Your task to perform on an android device: turn on wifi Image 0: 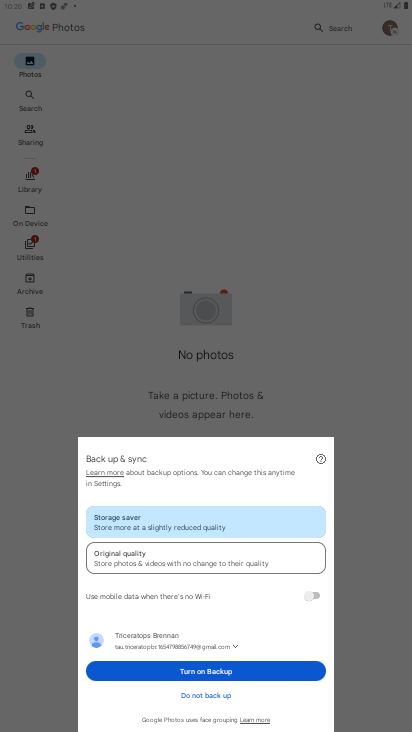
Step 0: press home button
Your task to perform on an android device: turn on wifi Image 1: 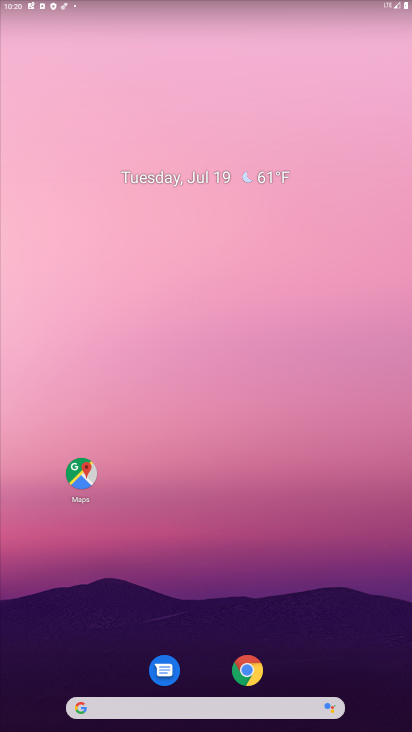
Step 1: drag from (222, 731) to (214, 178)
Your task to perform on an android device: turn on wifi Image 2: 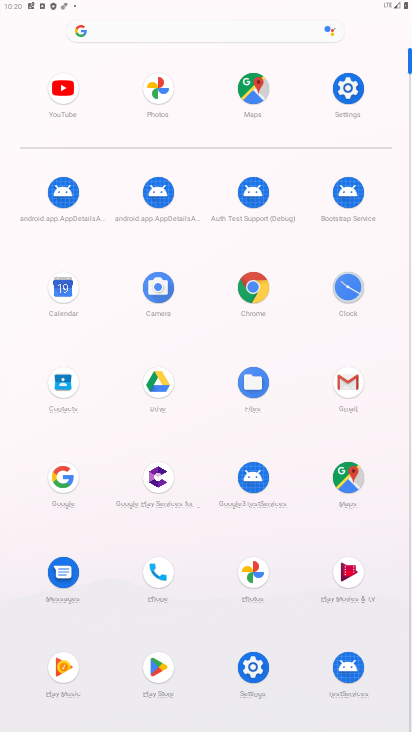
Step 2: click (362, 70)
Your task to perform on an android device: turn on wifi Image 3: 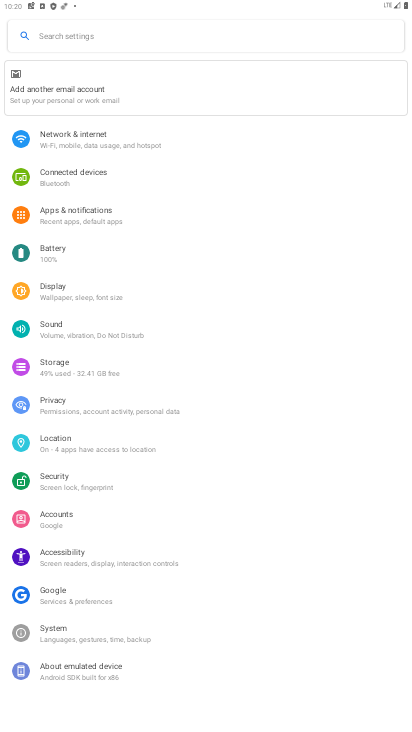
Step 3: click (123, 147)
Your task to perform on an android device: turn on wifi Image 4: 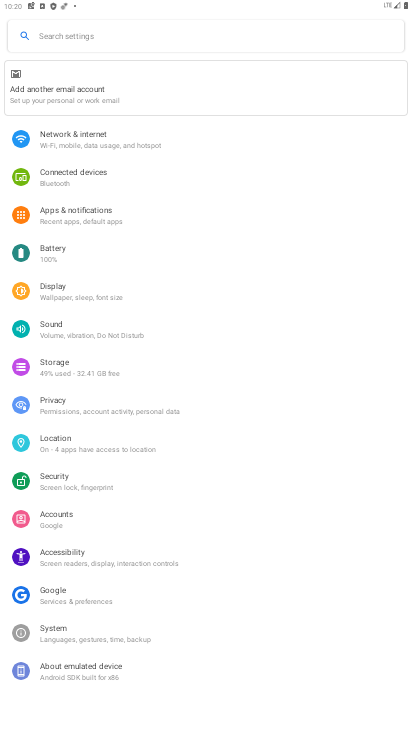
Step 4: click (123, 147)
Your task to perform on an android device: turn on wifi Image 5: 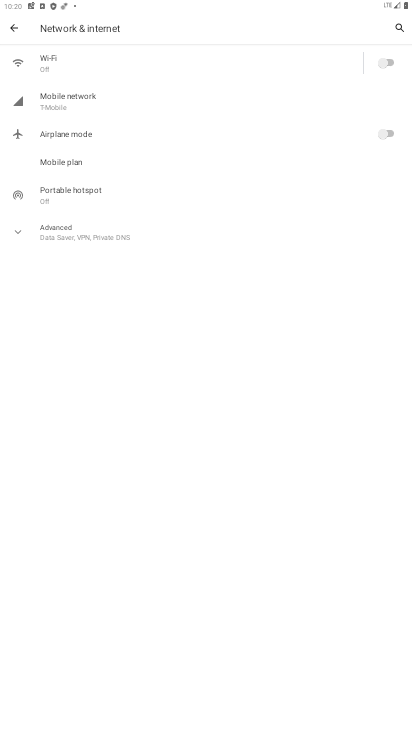
Step 5: click (386, 62)
Your task to perform on an android device: turn on wifi Image 6: 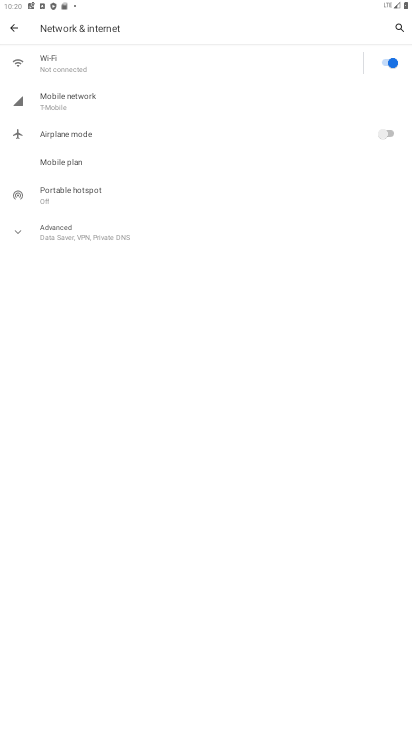
Step 6: task complete